Your task to perform on an android device: change the clock style Image 0: 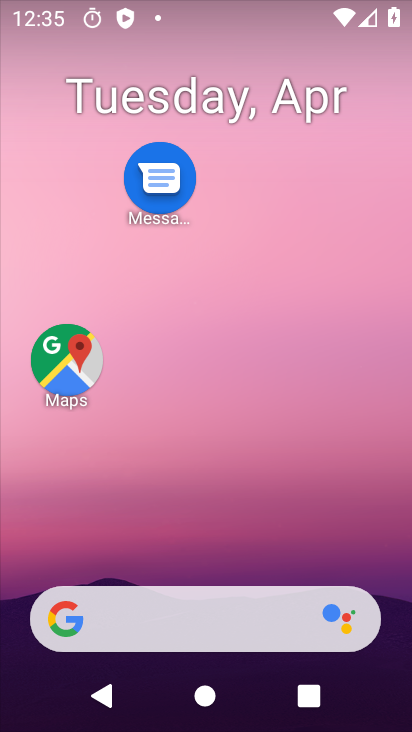
Step 0: drag from (211, 721) to (211, 64)
Your task to perform on an android device: change the clock style Image 1: 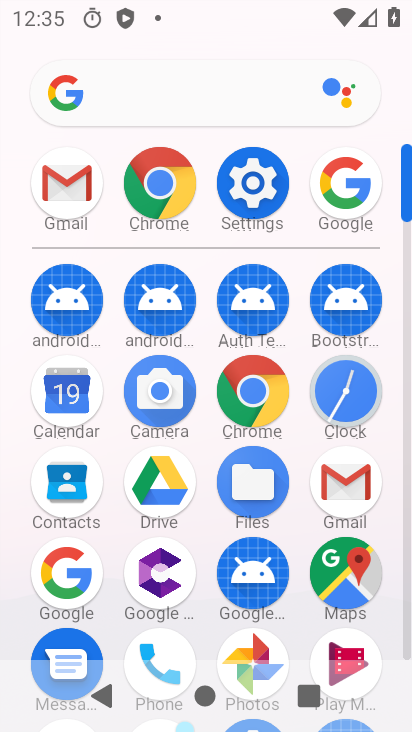
Step 1: click (355, 382)
Your task to perform on an android device: change the clock style Image 2: 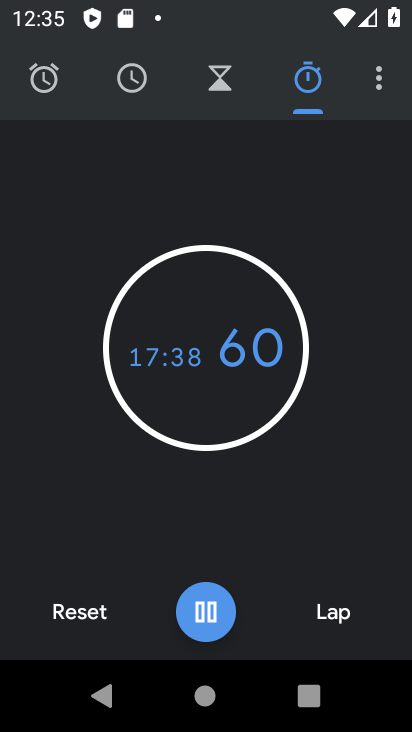
Step 2: click (379, 83)
Your task to perform on an android device: change the clock style Image 3: 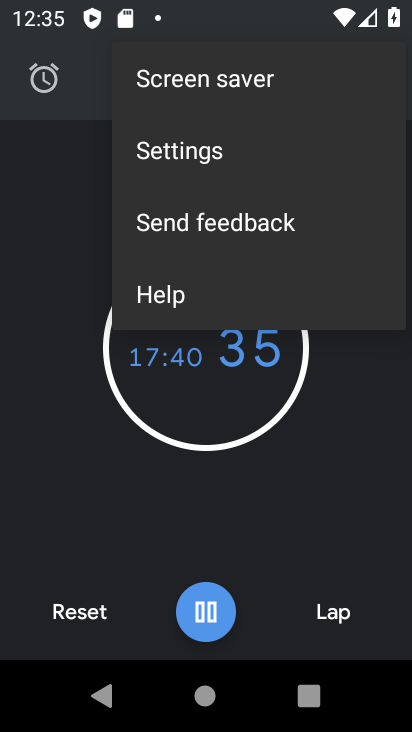
Step 3: click (172, 143)
Your task to perform on an android device: change the clock style Image 4: 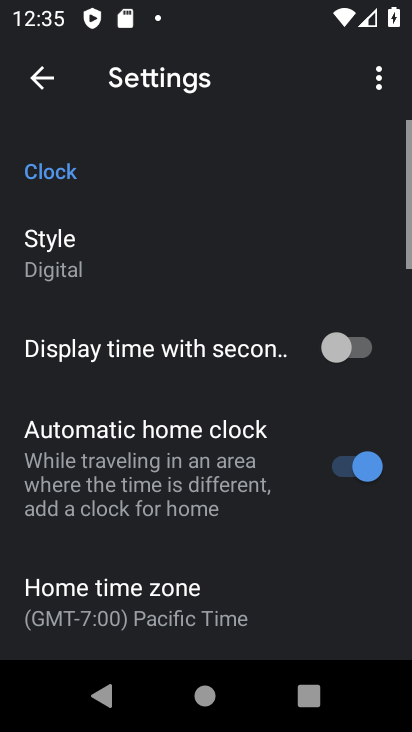
Step 4: click (53, 260)
Your task to perform on an android device: change the clock style Image 5: 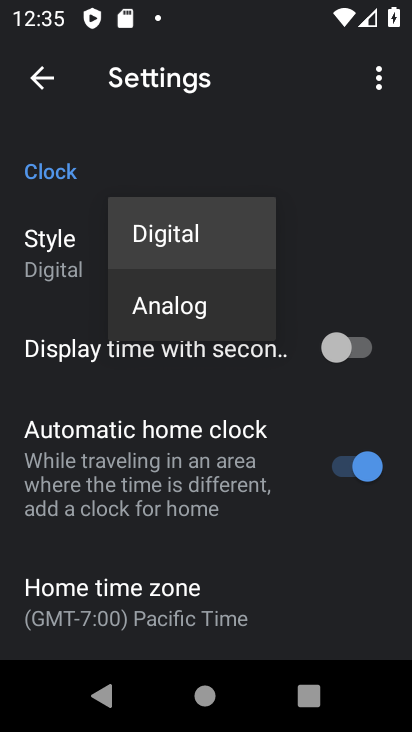
Step 5: click (150, 303)
Your task to perform on an android device: change the clock style Image 6: 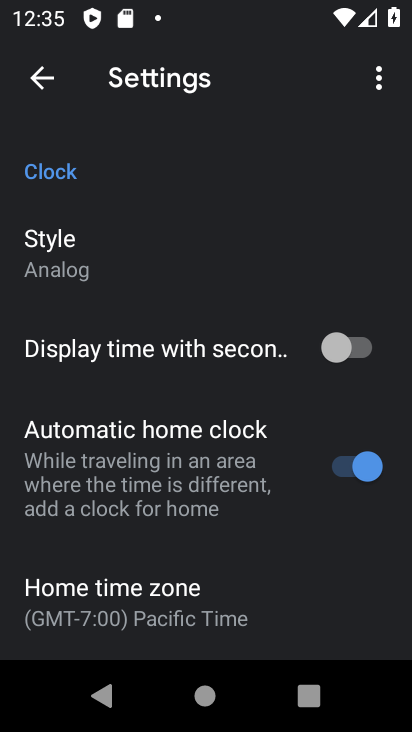
Step 6: task complete